Your task to perform on an android device: turn vacation reply on in the gmail app Image 0: 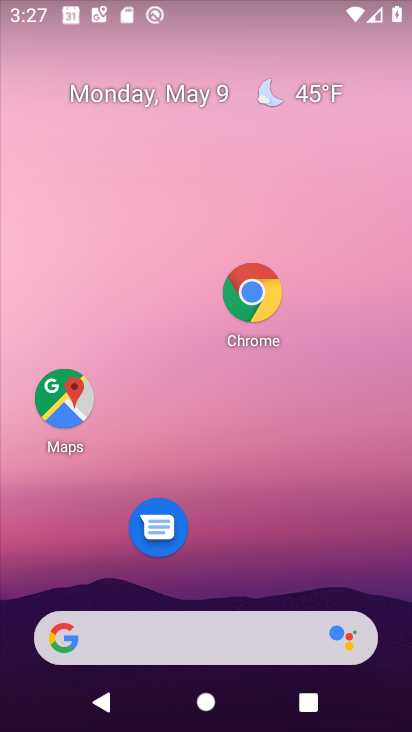
Step 0: drag from (263, 551) to (283, 174)
Your task to perform on an android device: turn vacation reply on in the gmail app Image 1: 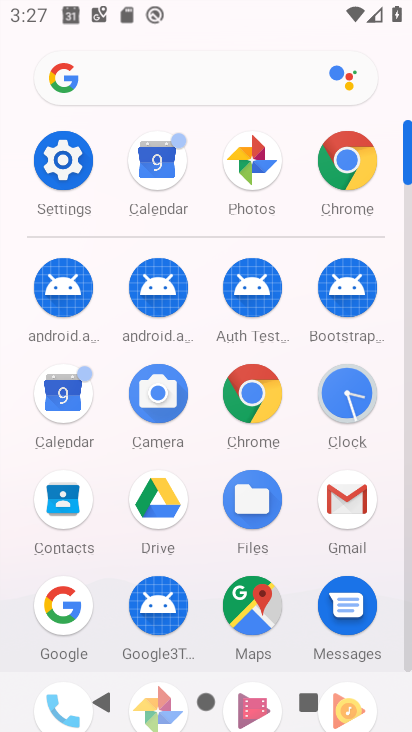
Step 1: click (356, 494)
Your task to perform on an android device: turn vacation reply on in the gmail app Image 2: 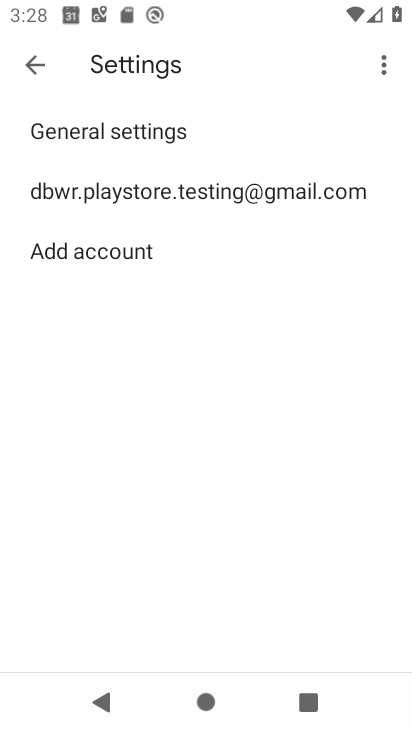
Step 2: click (191, 137)
Your task to perform on an android device: turn vacation reply on in the gmail app Image 3: 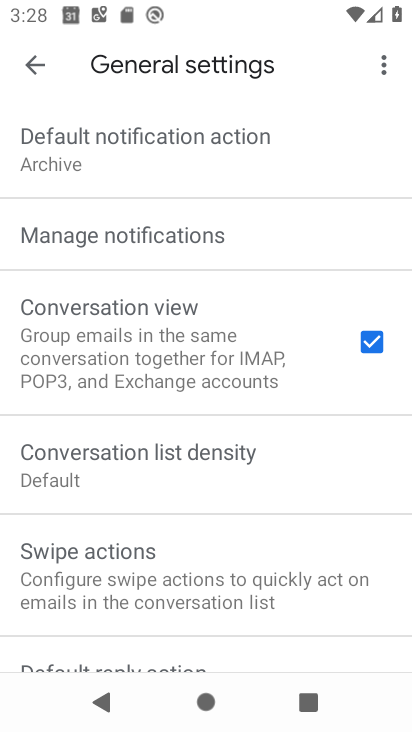
Step 3: click (47, 78)
Your task to perform on an android device: turn vacation reply on in the gmail app Image 4: 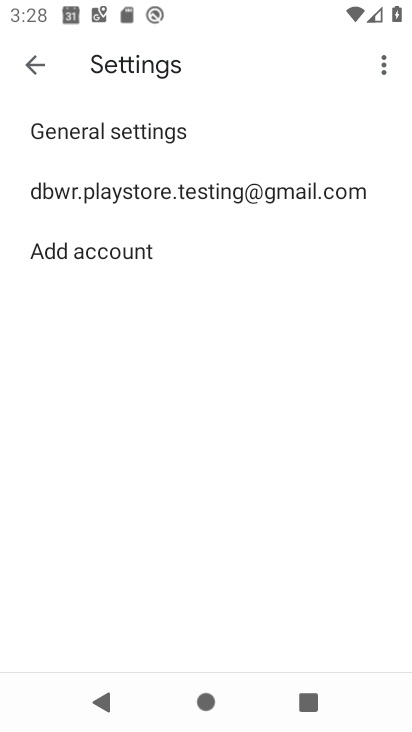
Step 4: click (175, 197)
Your task to perform on an android device: turn vacation reply on in the gmail app Image 5: 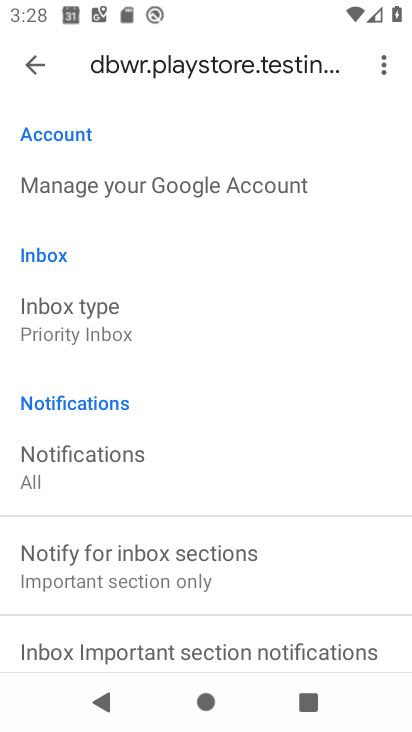
Step 5: drag from (218, 524) to (257, 280)
Your task to perform on an android device: turn vacation reply on in the gmail app Image 6: 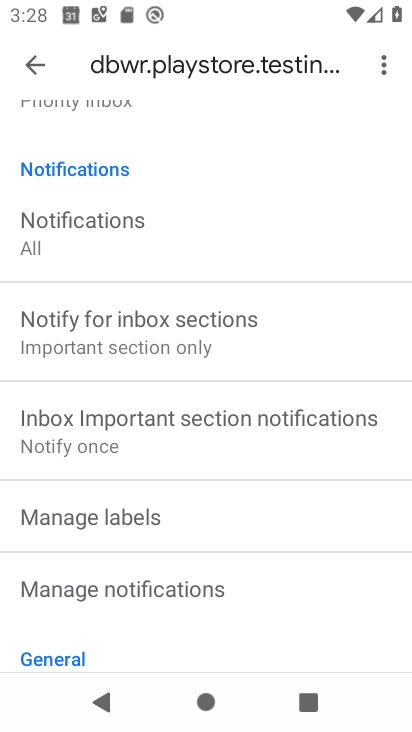
Step 6: drag from (230, 548) to (237, 363)
Your task to perform on an android device: turn vacation reply on in the gmail app Image 7: 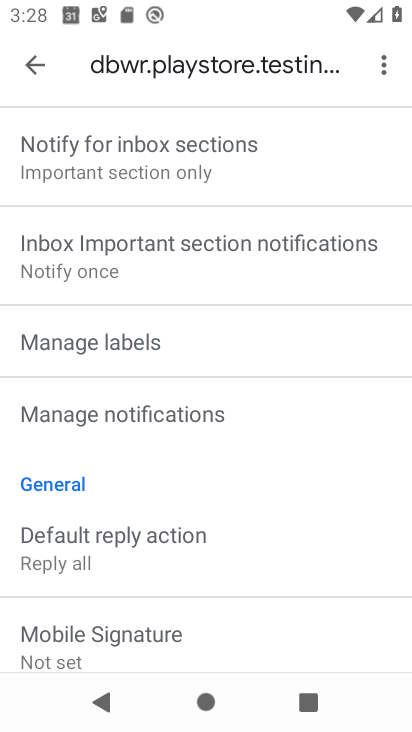
Step 7: drag from (241, 556) to (278, 232)
Your task to perform on an android device: turn vacation reply on in the gmail app Image 8: 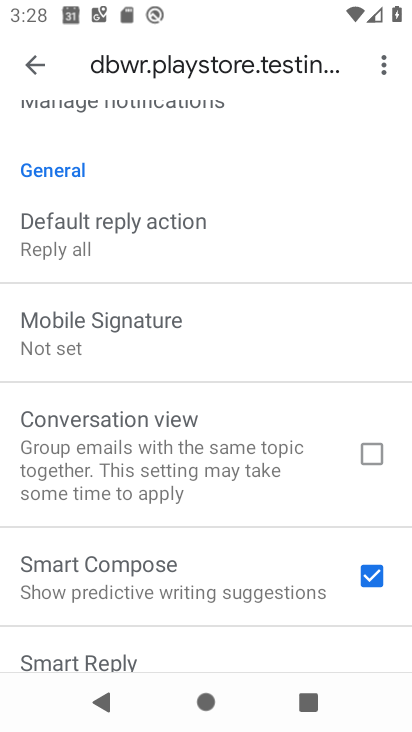
Step 8: drag from (224, 604) to (270, 305)
Your task to perform on an android device: turn vacation reply on in the gmail app Image 9: 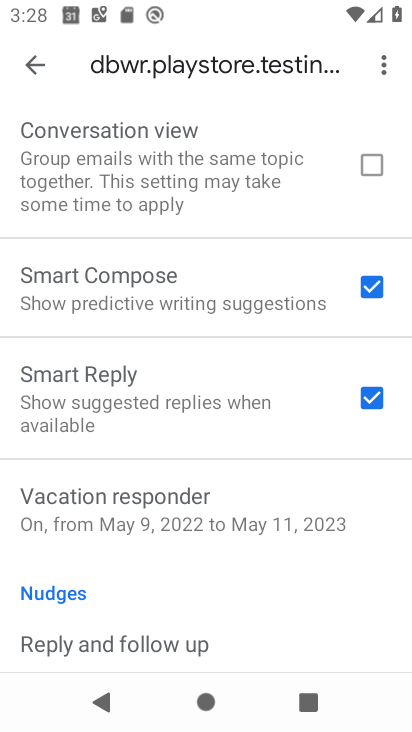
Step 9: click (247, 510)
Your task to perform on an android device: turn vacation reply on in the gmail app Image 10: 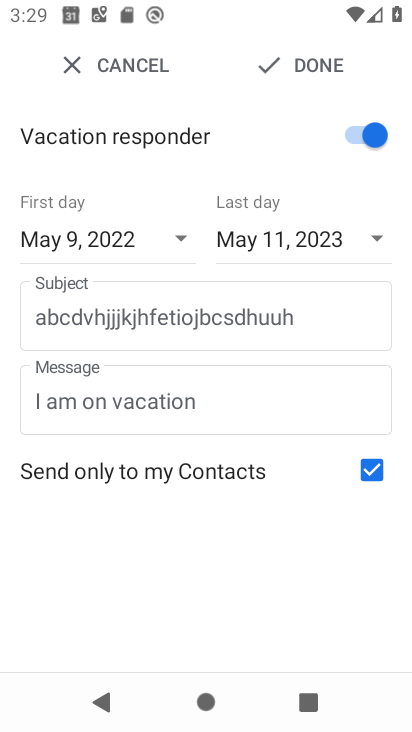
Step 10: task complete